Your task to perform on an android device: Open Google Chrome and open the bookmarks view Image 0: 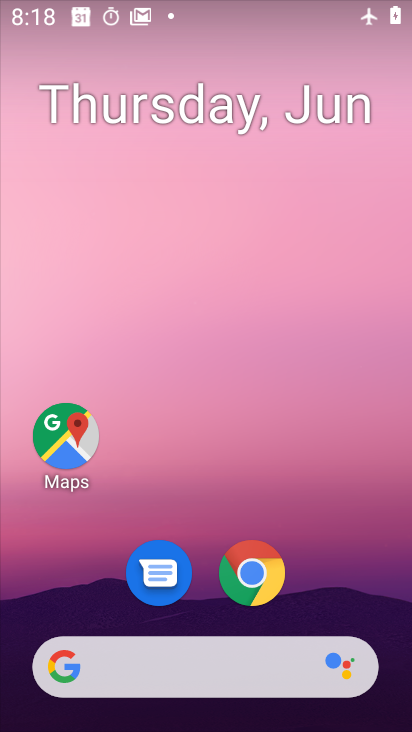
Step 0: click (235, 567)
Your task to perform on an android device: Open Google Chrome and open the bookmarks view Image 1: 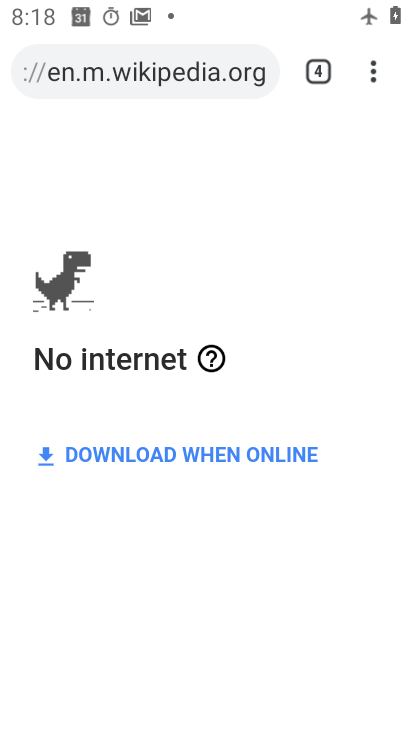
Step 1: click (383, 61)
Your task to perform on an android device: Open Google Chrome and open the bookmarks view Image 2: 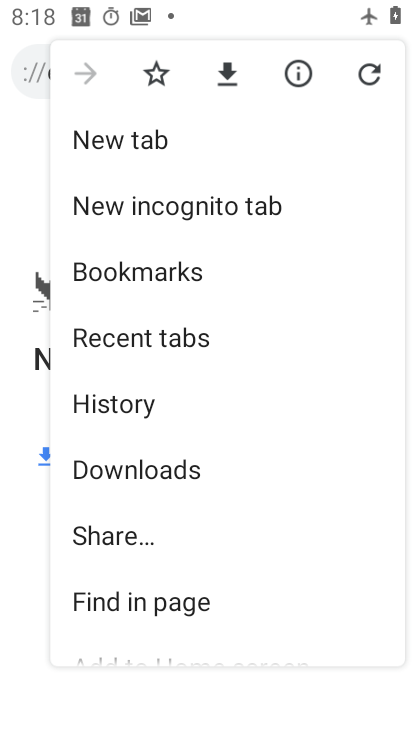
Step 2: click (195, 274)
Your task to perform on an android device: Open Google Chrome and open the bookmarks view Image 3: 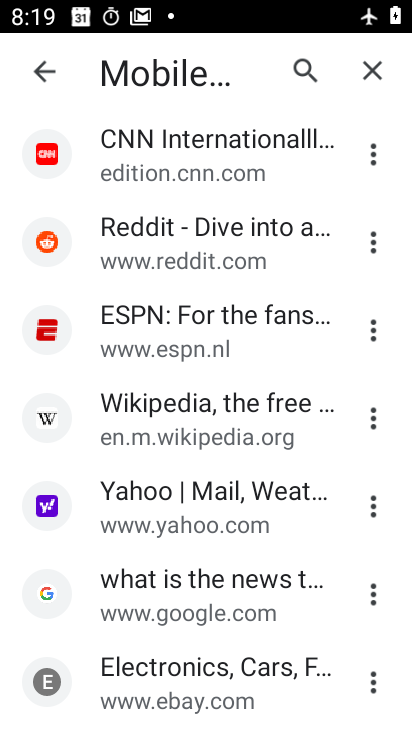
Step 3: task complete